Your task to perform on an android device: turn off improve location accuracy Image 0: 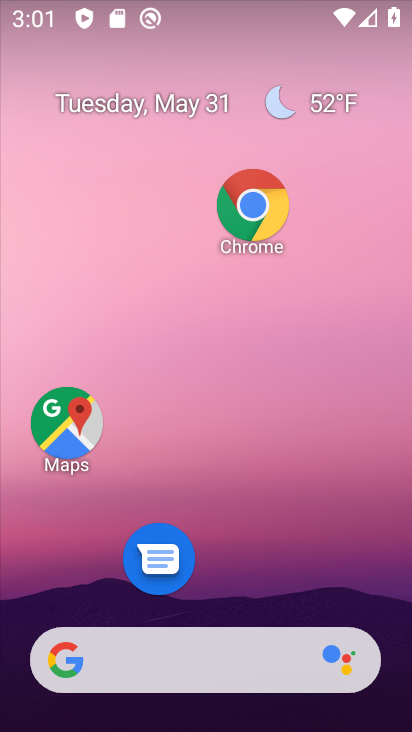
Step 0: drag from (234, 558) to (236, 137)
Your task to perform on an android device: turn off improve location accuracy Image 1: 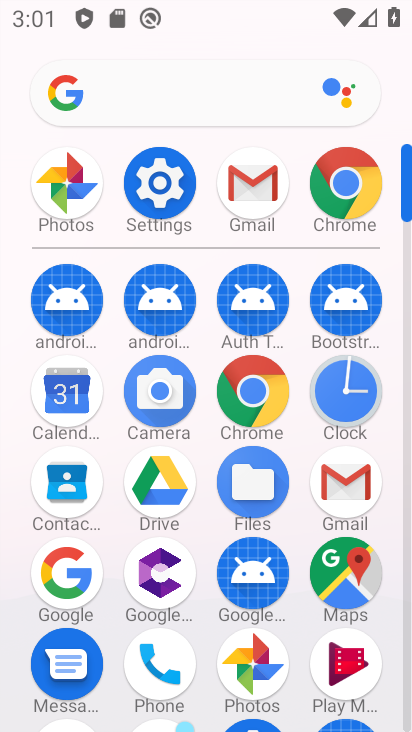
Step 1: click (169, 175)
Your task to perform on an android device: turn off improve location accuracy Image 2: 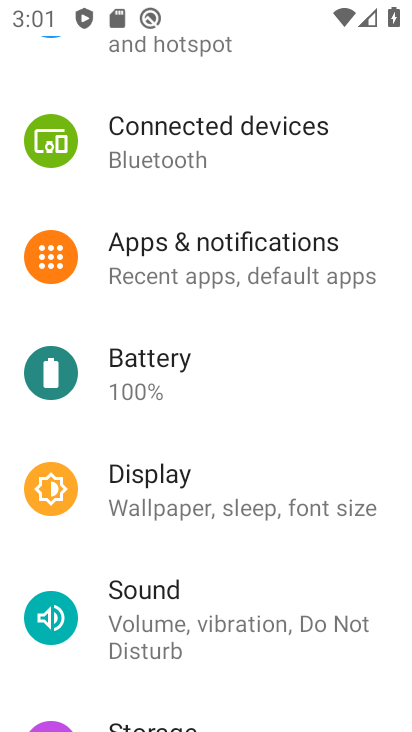
Step 2: drag from (210, 550) to (231, 243)
Your task to perform on an android device: turn off improve location accuracy Image 3: 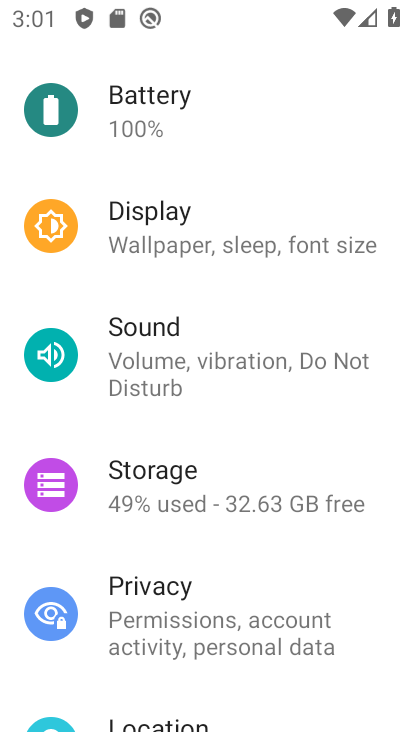
Step 3: drag from (173, 624) to (204, 392)
Your task to perform on an android device: turn off improve location accuracy Image 4: 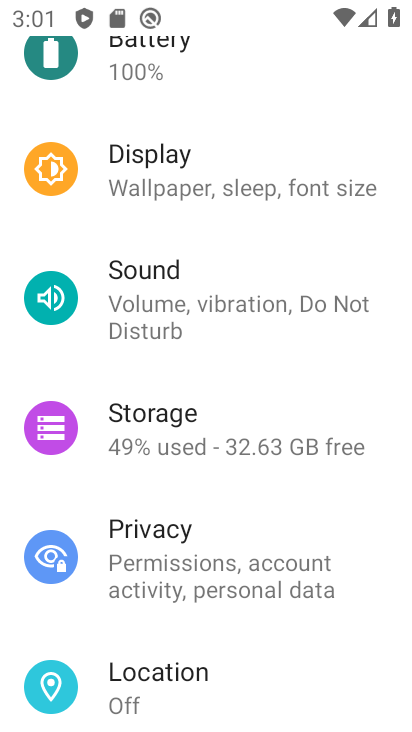
Step 4: click (168, 649)
Your task to perform on an android device: turn off improve location accuracy Image 5: 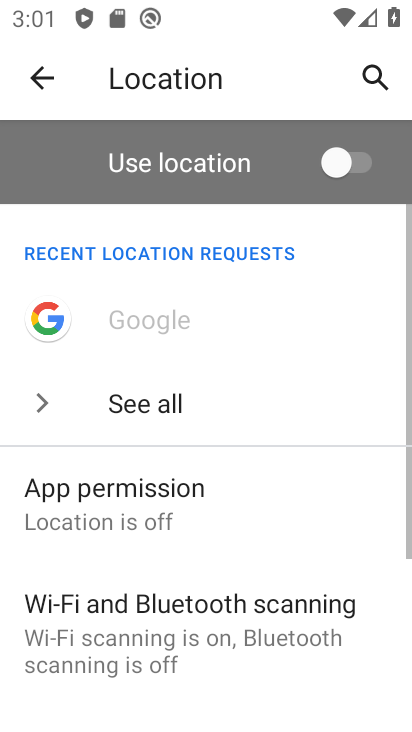
Step 5: drag from (164, 649) to (197, 376)
Your task to perform on an android device: turn off improve location accuracy Image 6: 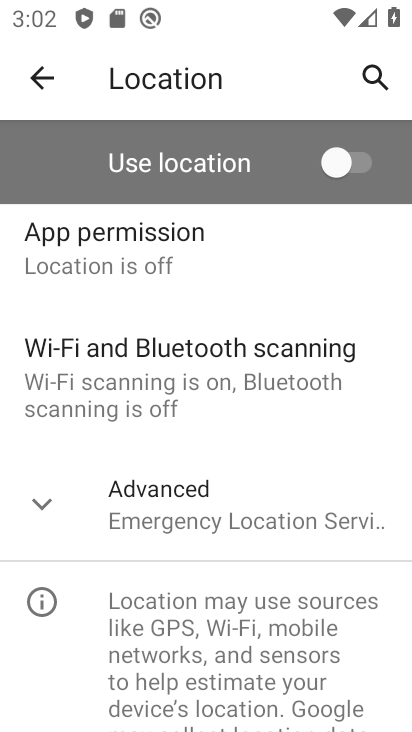
Step 6: drag from (265, 307) to (257, 557)
Your task to perform on an android device: turn off improve location accuracy Image 7: 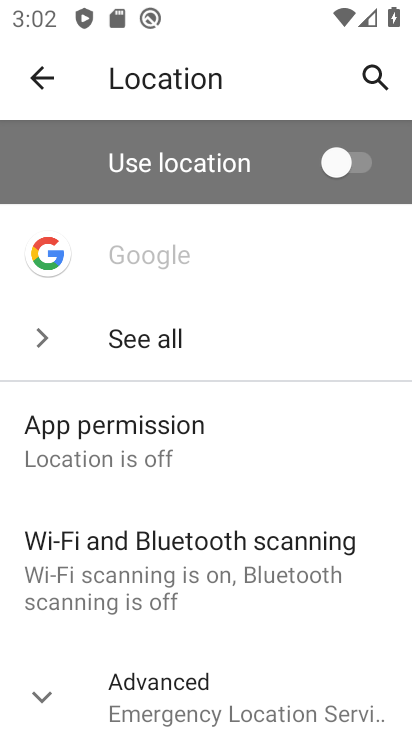
Step 7: drag from (183, 669) to (185, 378)
Your task to perform on an android device: turn off improve location accuracy Image 8: 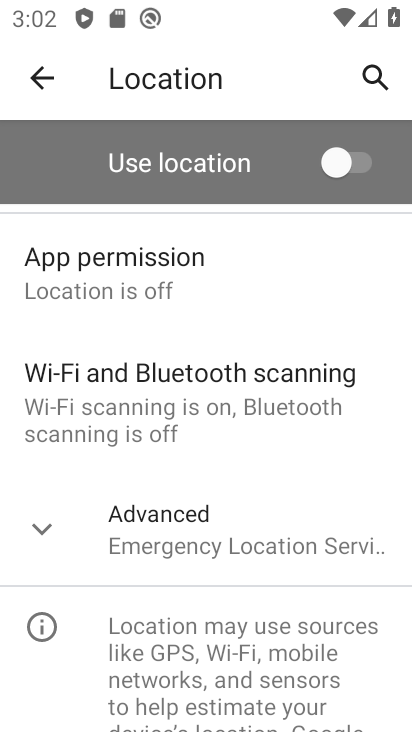
Step 8: click (106, 522)
Your task to perform on an android device: turn off improve location accuracy Image 9: 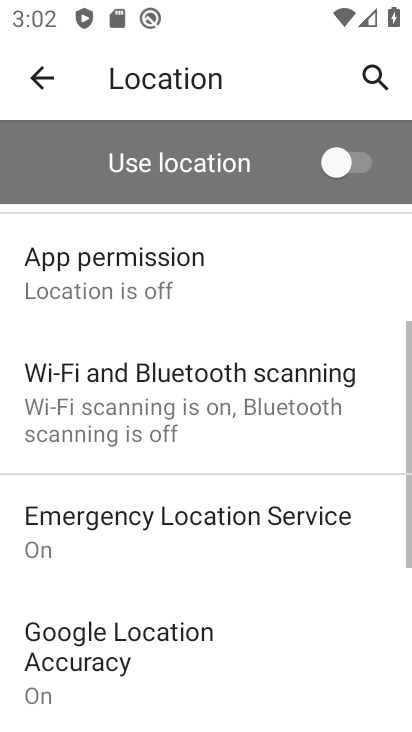
Step 9: drag from (191, 647) to (181, 378)
Your task to perform on an android device: turn off improve location accuracy Image 10: 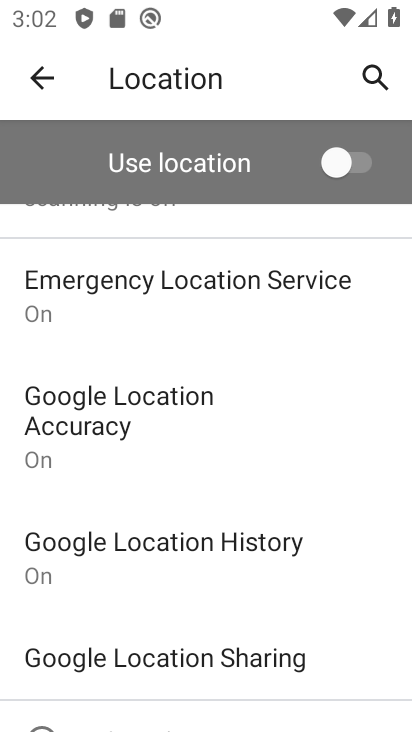
Step 10: click (175, 401)
Your task to perform on an android device: turn off improve location accuracy Image 11: 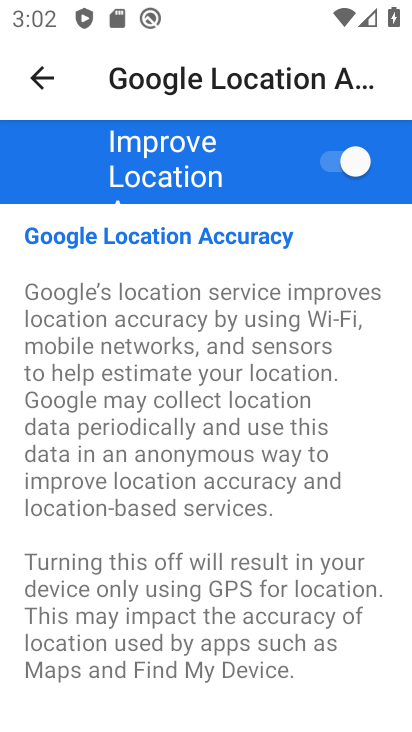
Step 11: click (317, 171)
Your task to perform on an android device: turn off improve location accuracy Image 12: 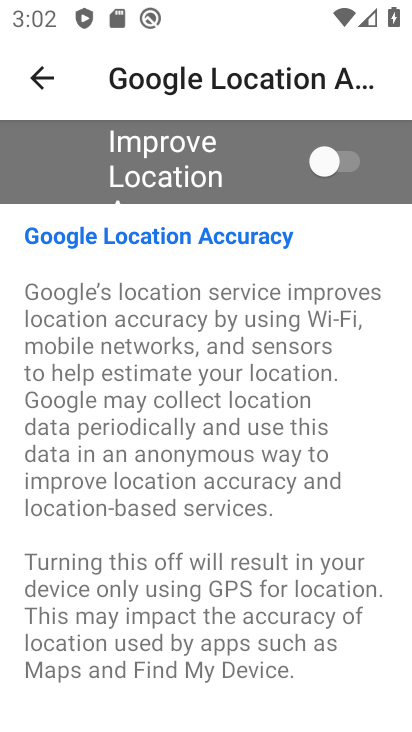
Step 12: task complete